Your task to perform on an android device: Open battery settings Image 0: 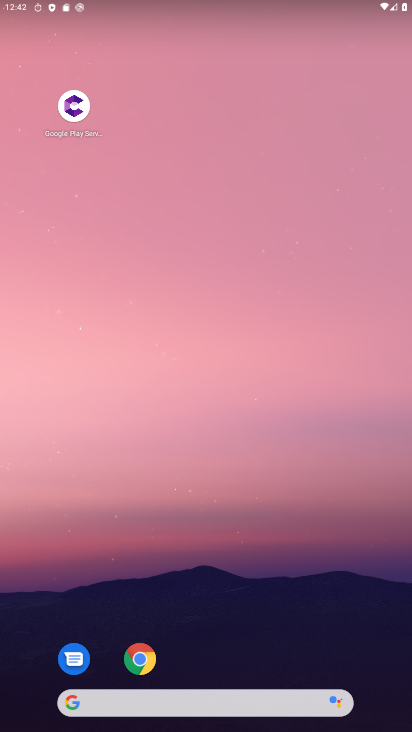
Step 0: drag from (288, 591) to (281, 110)
Your task to perform on an android device: Open battery settings Image 1: 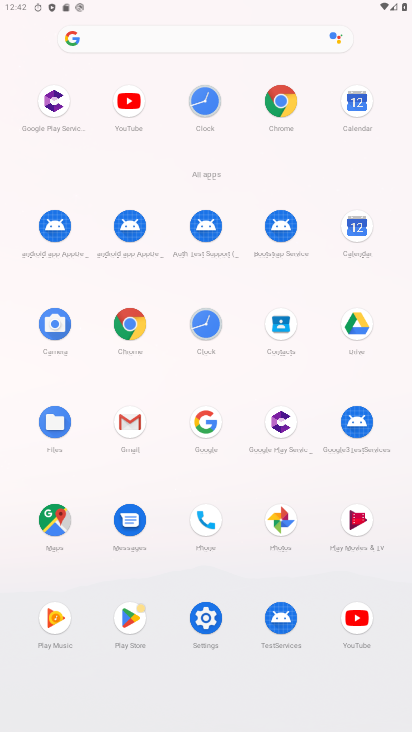
Step 1: click (211, 612)
Your task to perform on an android device: Open battery settings Image 2: 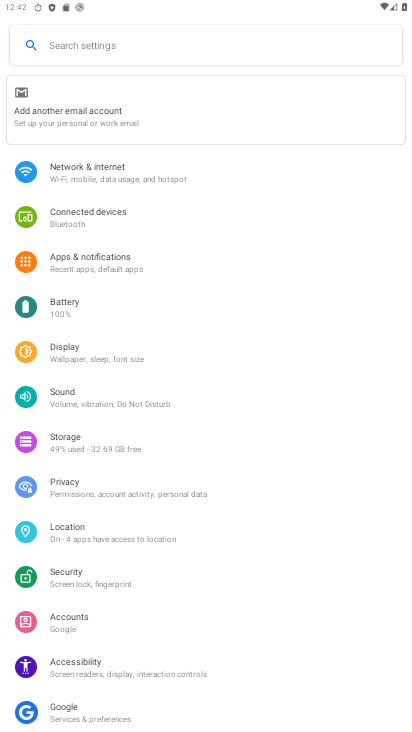
Step 2: click (69, 306)
Your task to perform on an android device: Open battery settings Image 3: 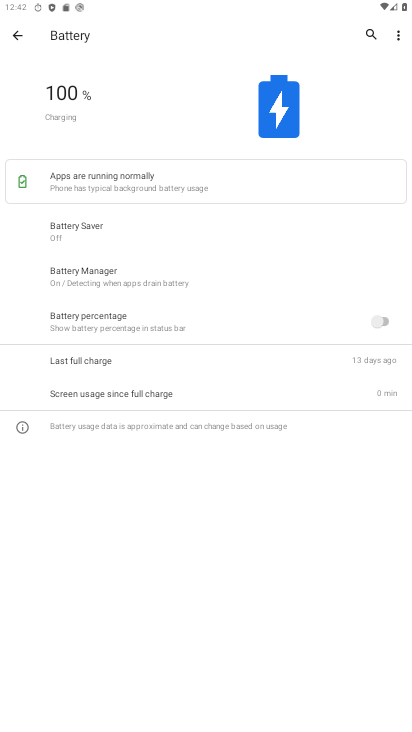
Step 3: task complete